Your task to perform on an android device: open app "Move to iOS" Image 0: 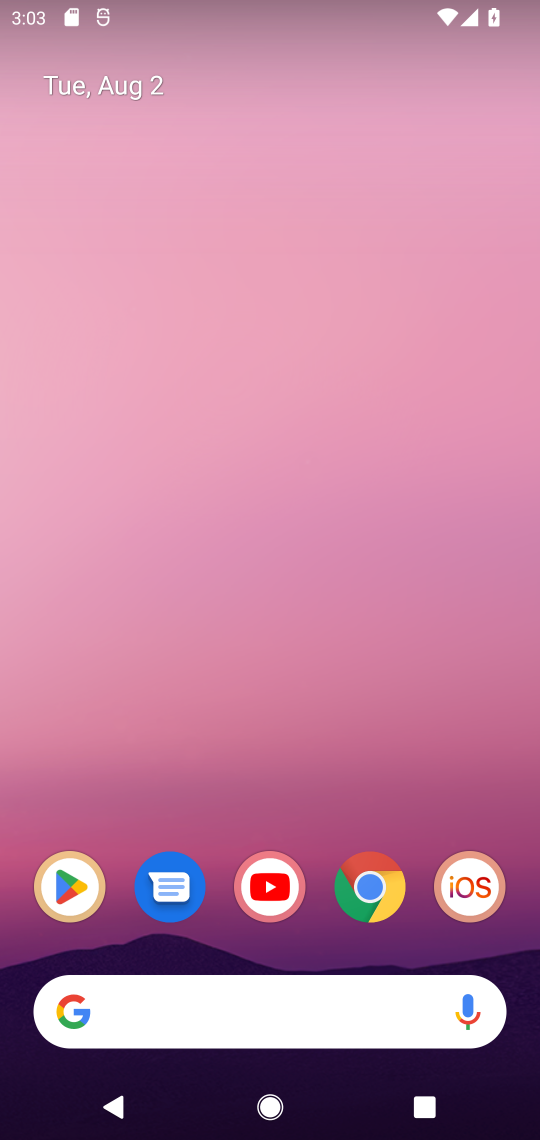
Step 0: click (468, 891)
Your task to perform on an android device: open app "Move to iOS" Image 1: 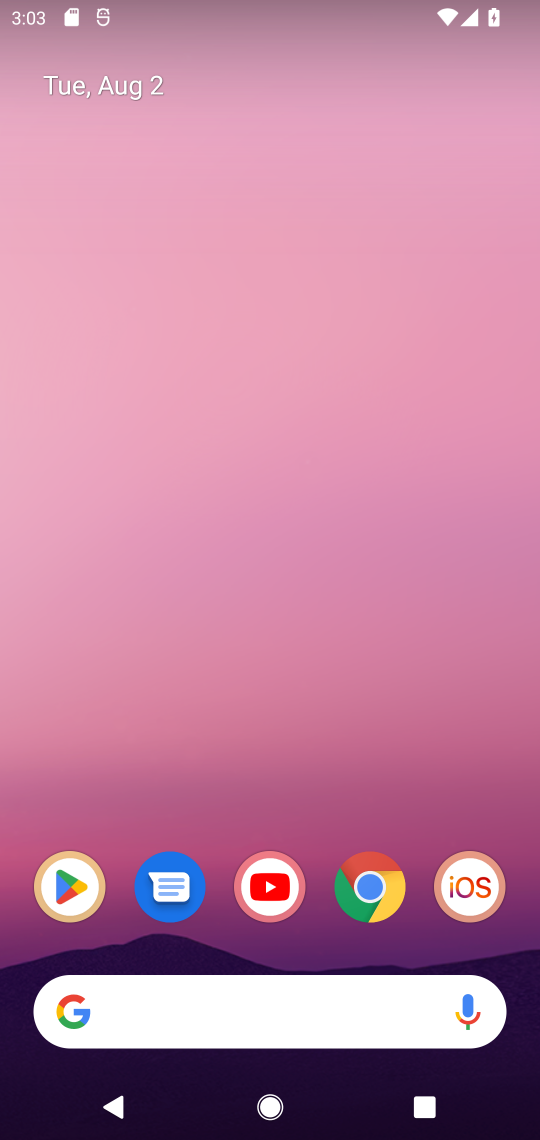
Step 1: click (472, 887)
Your task to perform on an android device: open app "Move to iOS" Image 2: 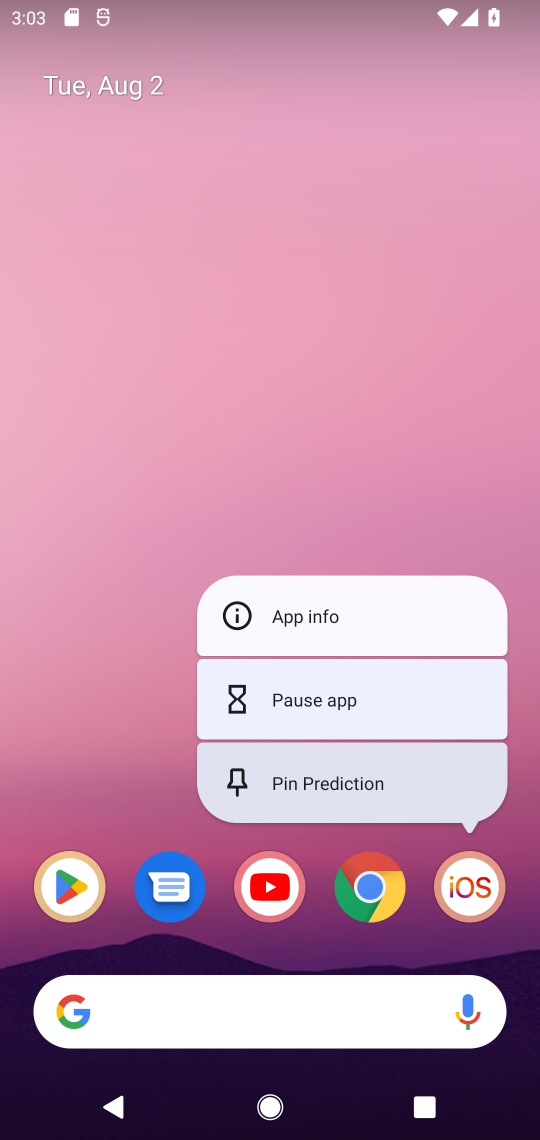
Step 2: click (464, 866)
Your task to perform on an android device: open app "Move to iOS" Image 3: 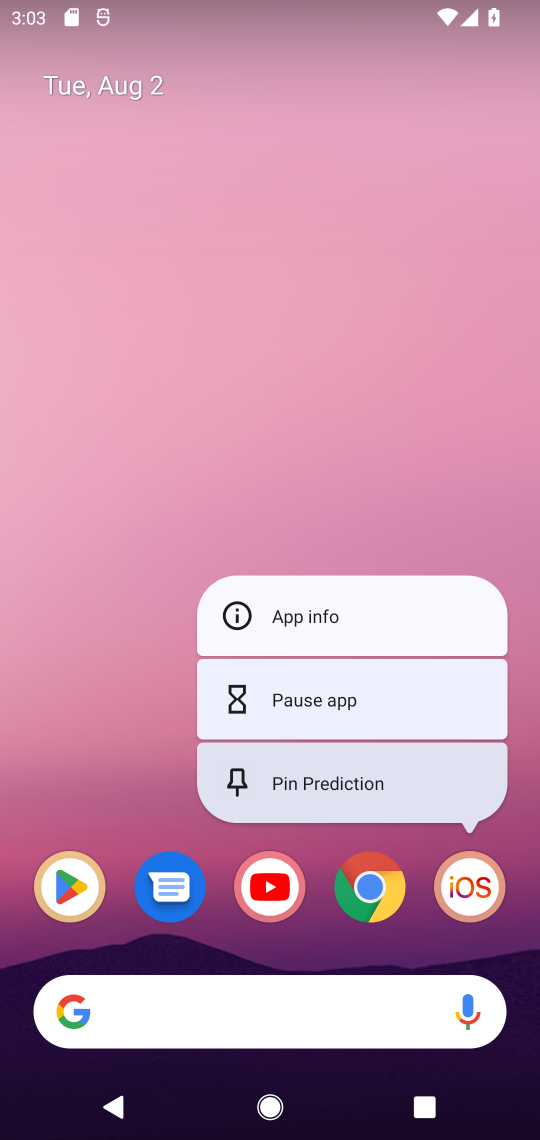
Step 3: click (462, 859)
Your task to perform on an android device: open app "Move to iOS" Image 4: 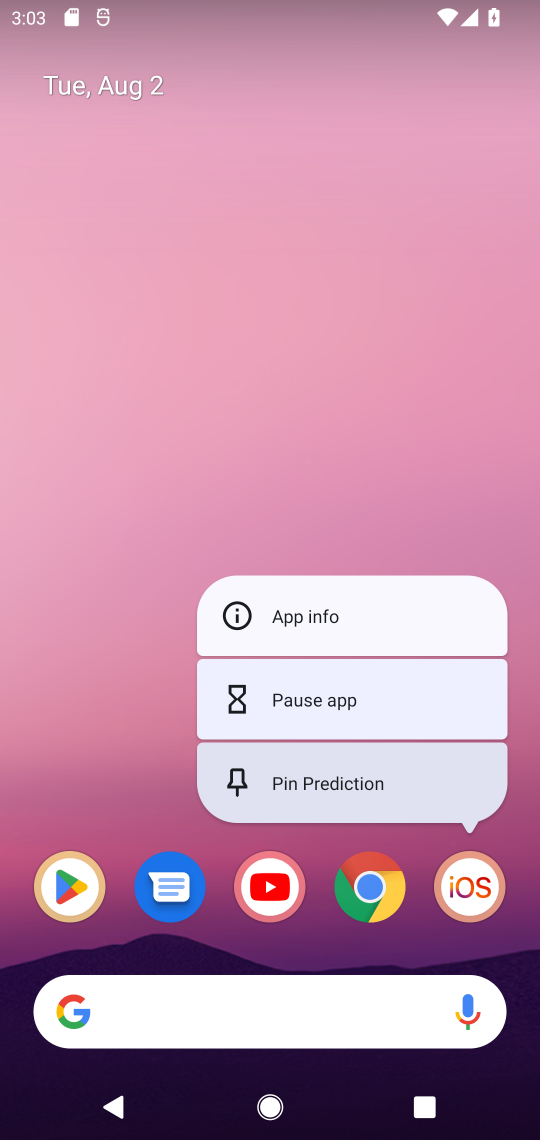
Step 4: click (467, 892)
Your task to perform on an android device: open app "Move to iOS" Image 5: 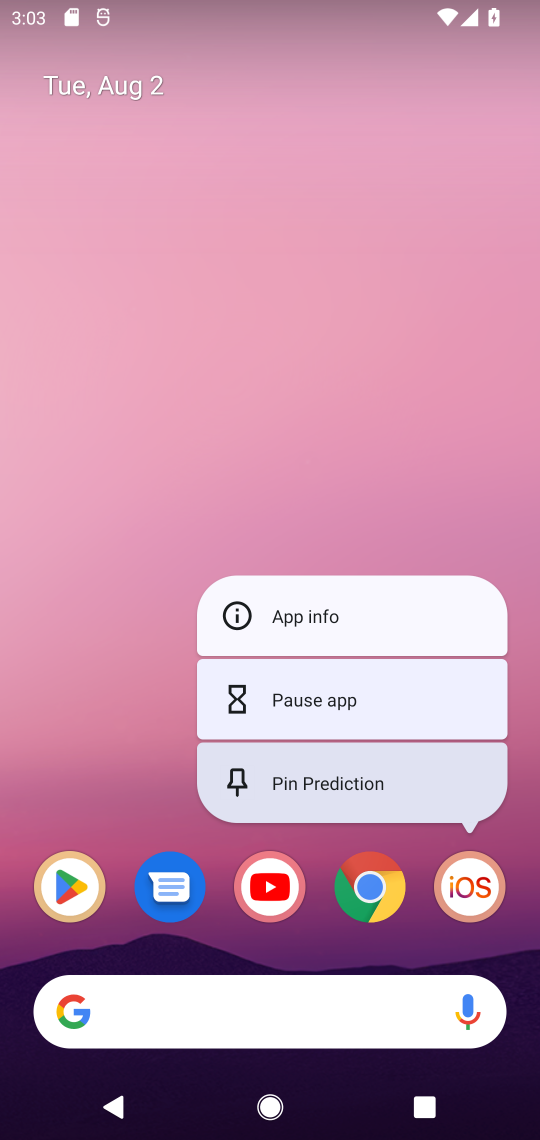
Step 5: click (463, 870)
Your task to perform on an android device: open app "Move to iOS" Image 6: 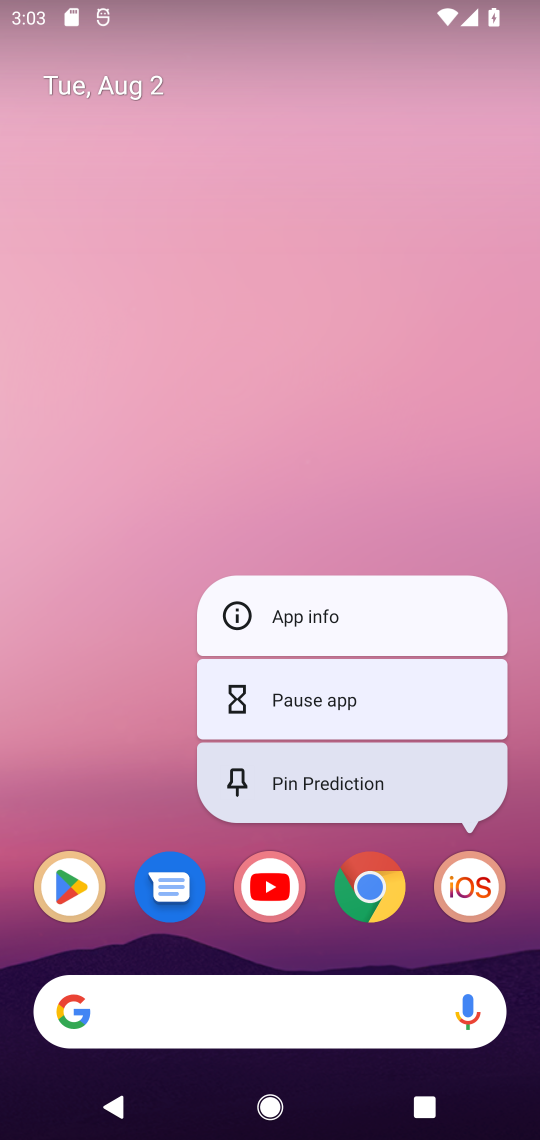
Step 6: click (463, 861)
Your task to perform on an android device: open app "Move to iOS" Image 7: 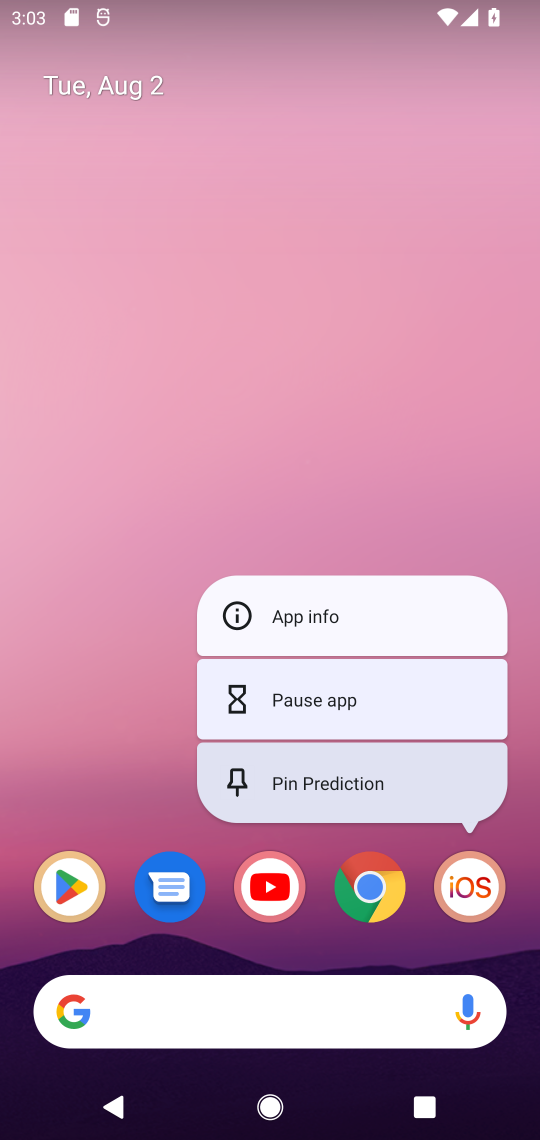
Step 7: task complete